Your task to perform on an android device: install app "Yahoo Mail" Image 0: 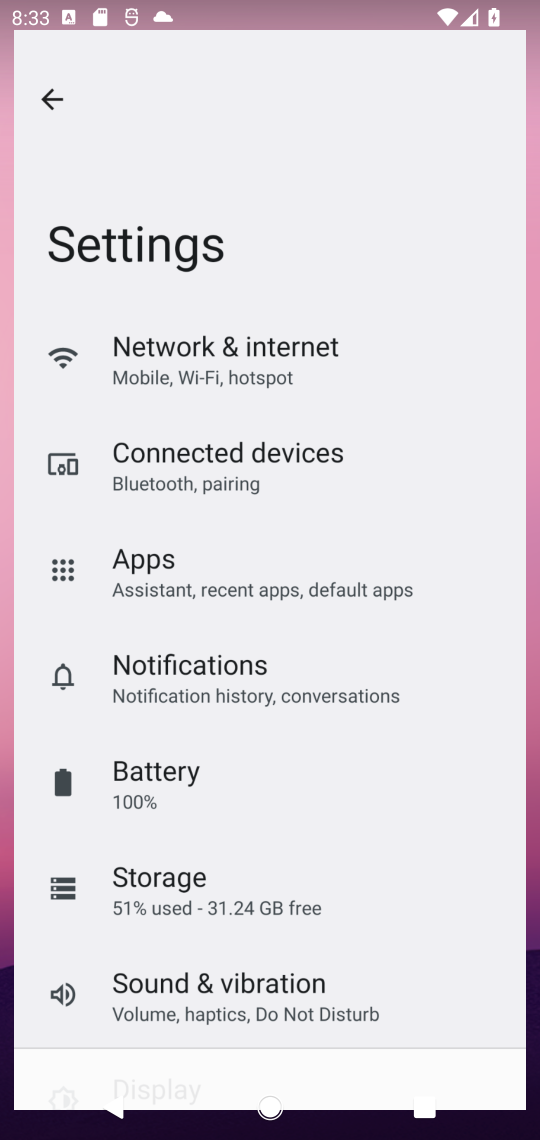
Step 0: click (536, 772)
Your task to perform on an android device: install app "Yahoo Mail" Image 1: 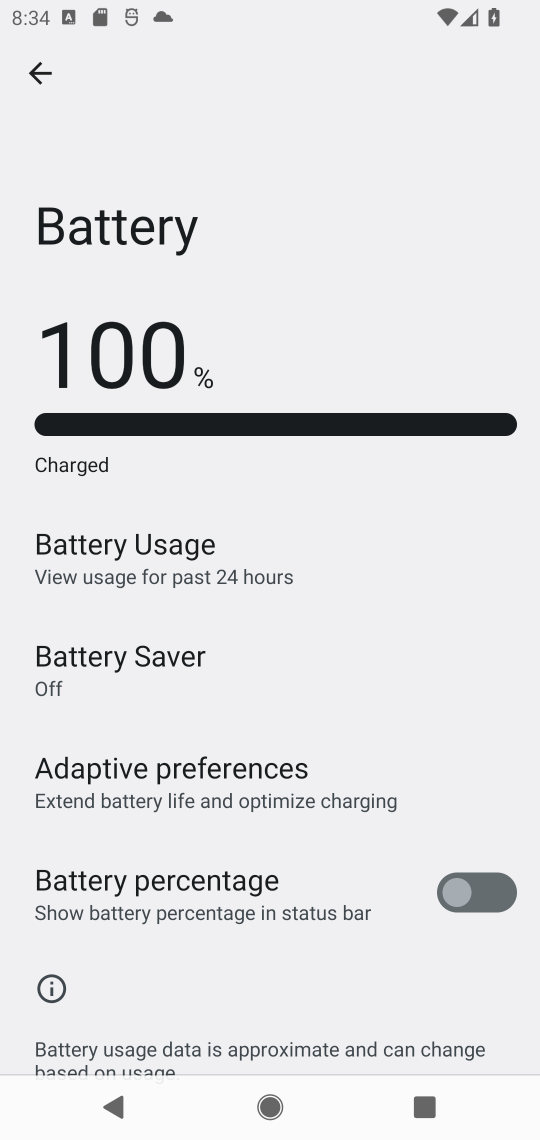
Step 1: press home button
Your task to perform on an android device: install app "Yahoo Mail" Image 2: 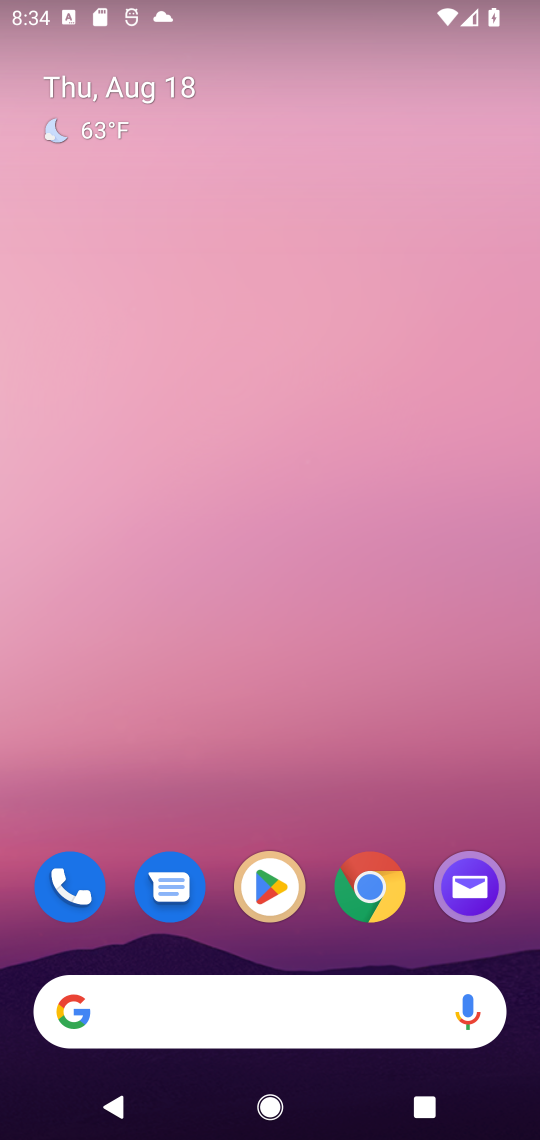
Step 2: click (272, 888)
Your task to perform on an android device: install app "Yahoo Mail" Image 3: 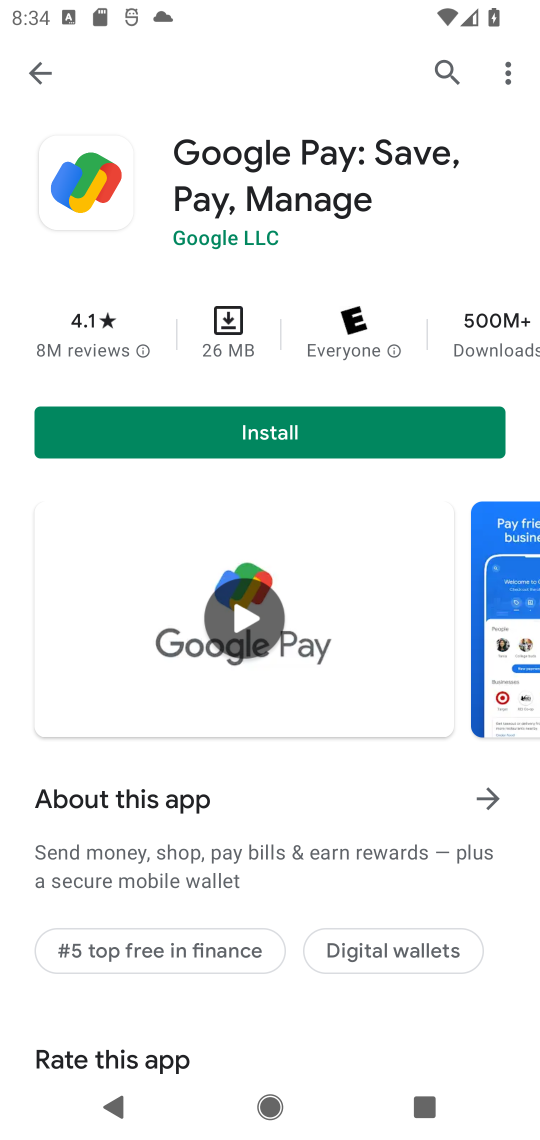
Step 3: click (444, 68)
Your task to perform on an android device: install app "Yahoo Mail" Image 4: 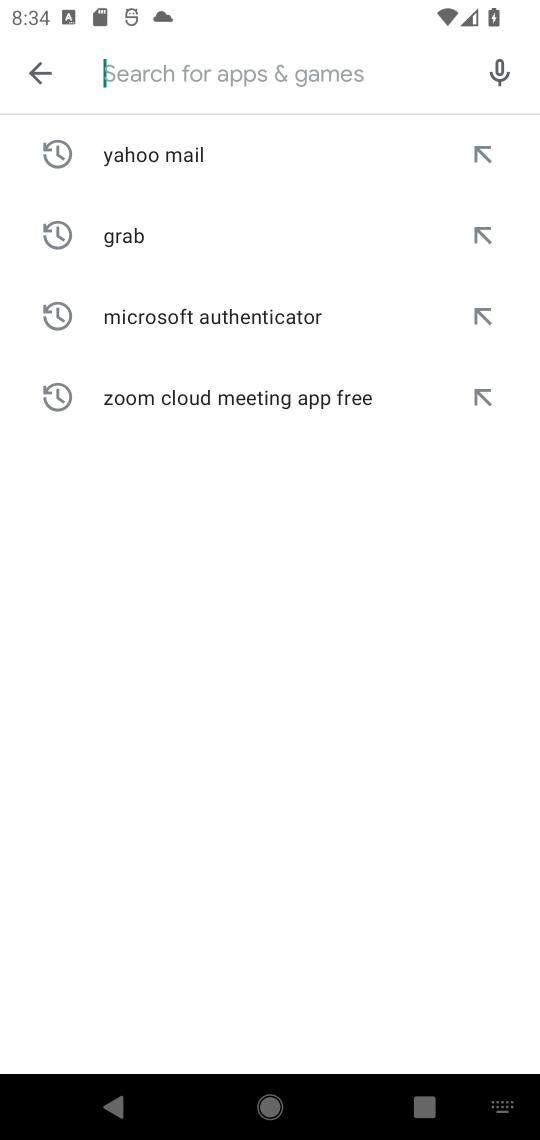
Step 4: type "Yahoo Mail"
Your task to perform on an android device: install app "Yahoo Mail" Image 5: 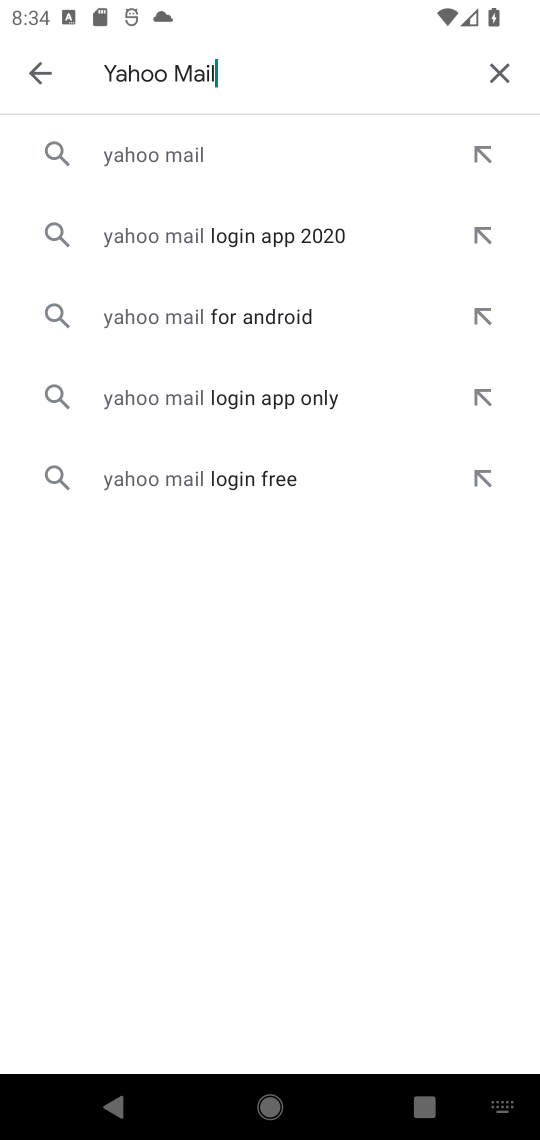
Step 5: click (196, 151)
Your task to perform on an android device: install app "Yahoo Mail" Image 6: 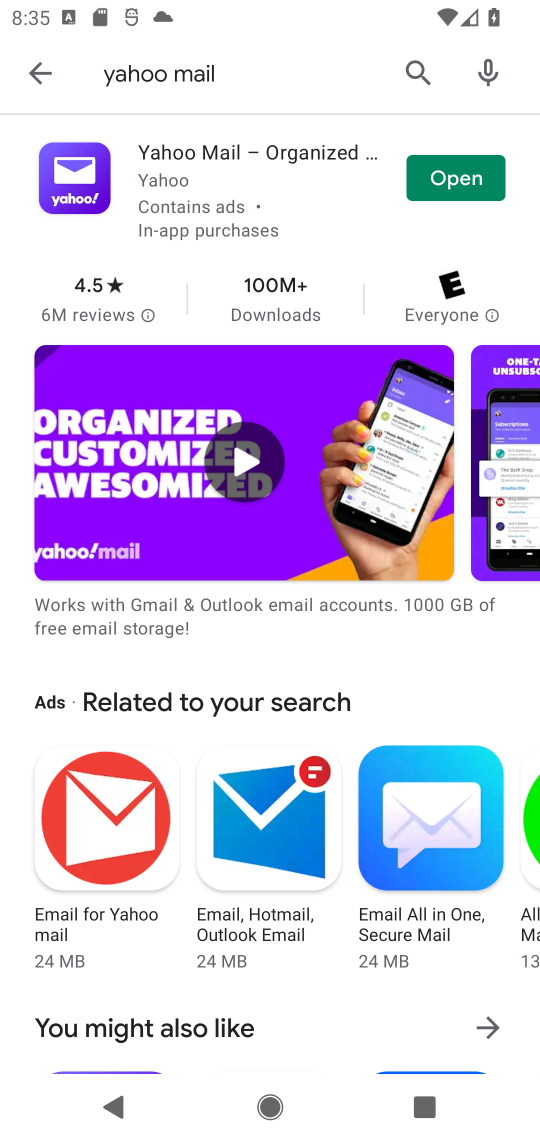
Step 6: click (156, 185)
Your task to perform on an android device: install app "Yahoo Mail" Image 7: 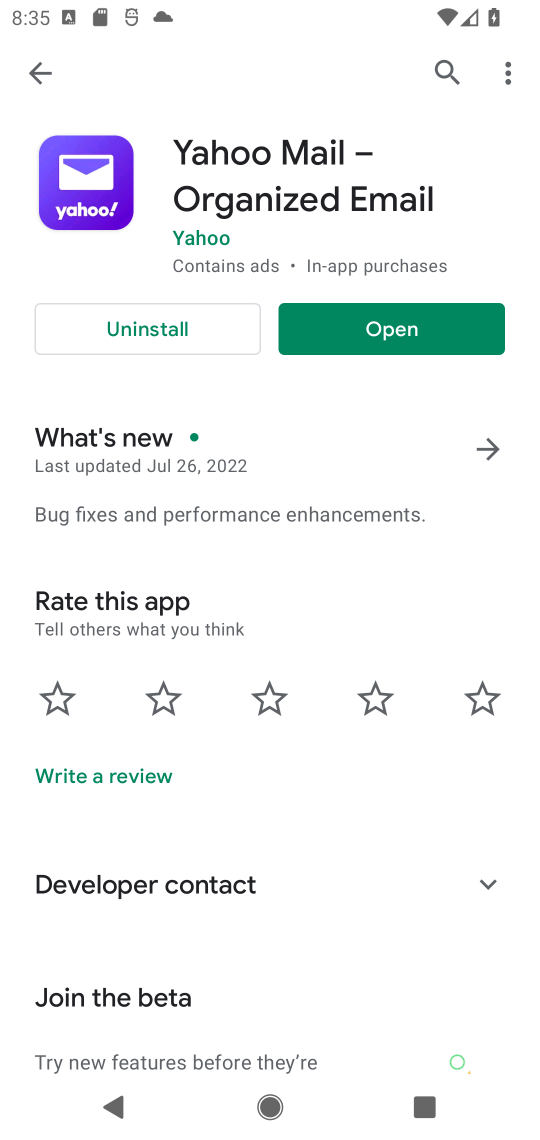
Step 7: task complete